Your task to perform on an android device: delete the emails in spam in the gmail app Image 0: 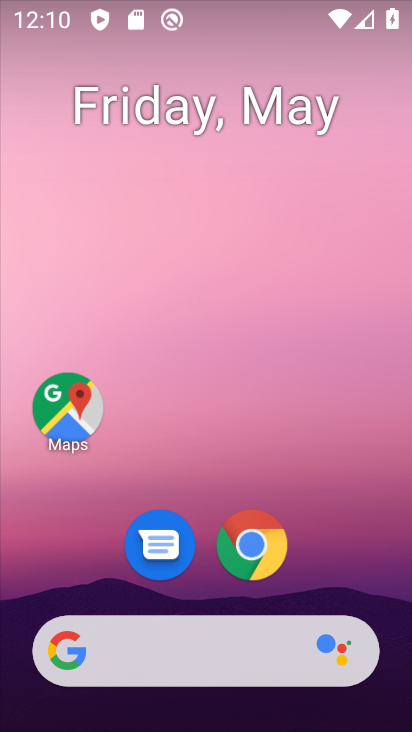
Step 0: drag from (324, 592) to (264, 83)
Your task to perform on an android device: delete the emails in spam in the gmail app Image 1: 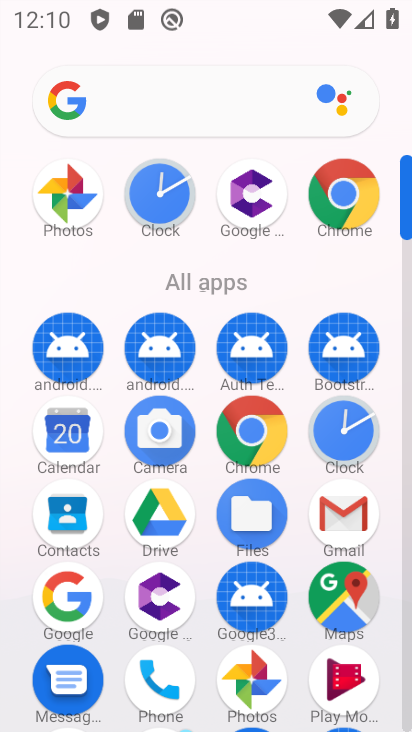
Step 1: drag from (205, 628) to (192, 364)
Your task to perform on an android device: delete the emails in spam in the gmail app Image 2: 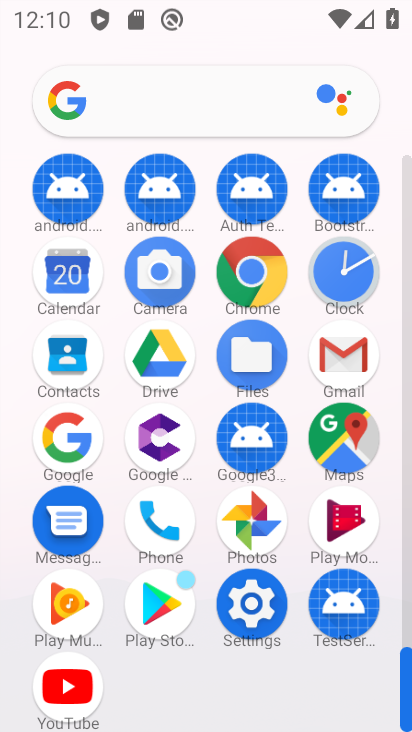
Step 2: click (336, 357)
Your task to perform on an android device: delete the emails in spam in the gmail app Image 3: 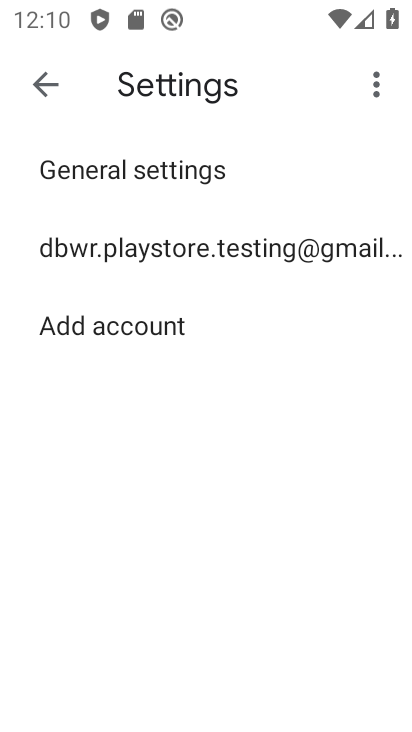
Step 3: click (52, 89)
Your task to perform on an android device: delete the emails in spam in the gmail app Image 4: 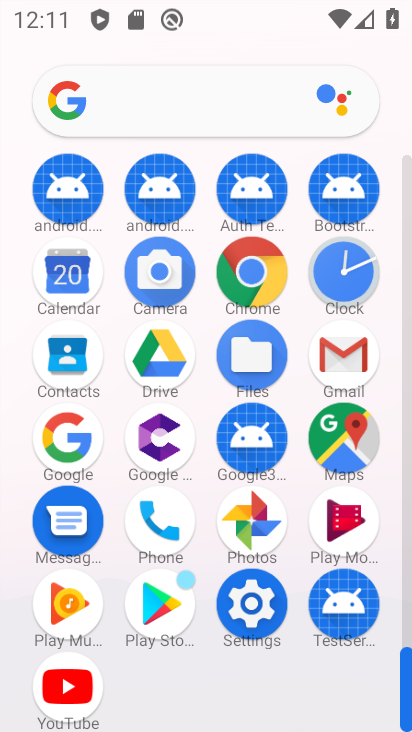
Step 4: click (346, 355)
Your task to perform on an android device: delete the emails in spam in the gmail app Image 5: 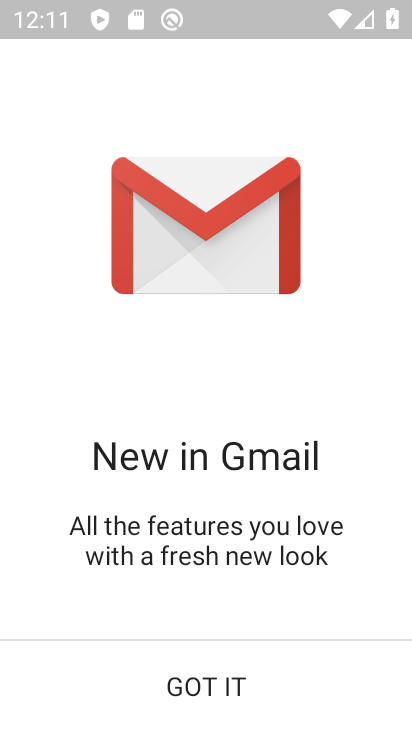
Step 5: click (201, 688)
Your task to perform on an android device: delete the emails in spam in the gmail app Image 6: 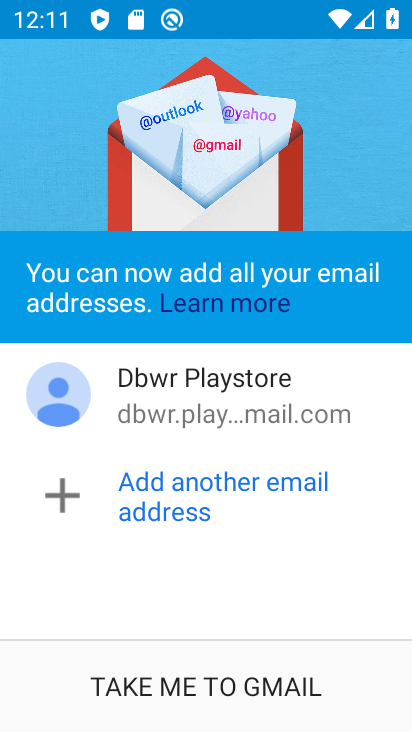
Step 6: click (246, 681)
Your task to perform on an android device: delete the emails in spam in the gmail app Image 7: 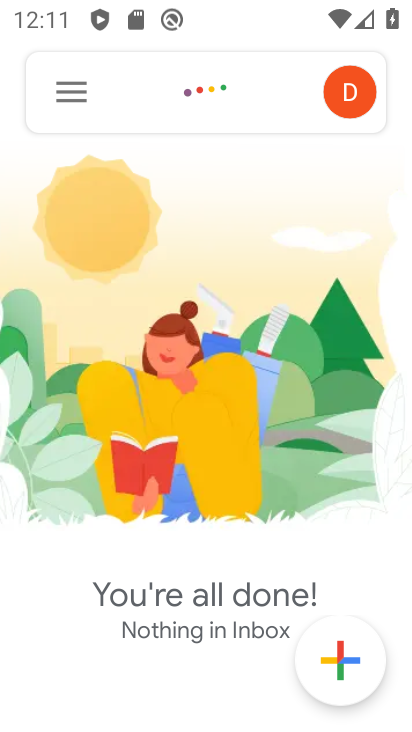
Step 7: click (62, 95)
Your task to perform on an android device: delete the emails in spam in the gmail app Image 8: 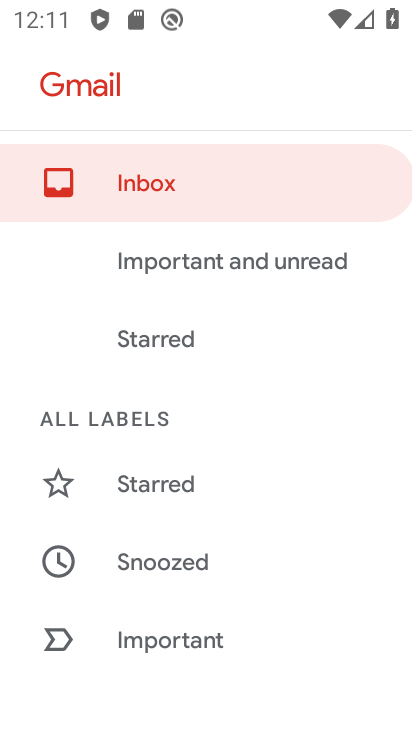
Step 8: drag from (198, 607) to (221, 187)
Your task to perform on an android device: delete the emails in spam in the gmail app Image 9: 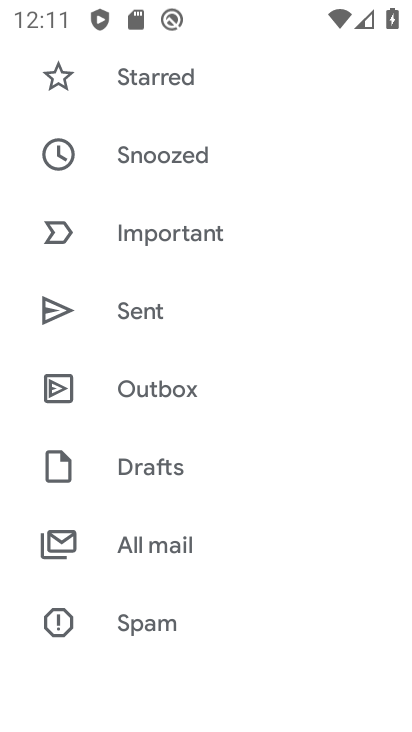
Step 9: click (178, 616)
Your task to perform on an android device: delete the emails in spam in the gmail app Image 10: 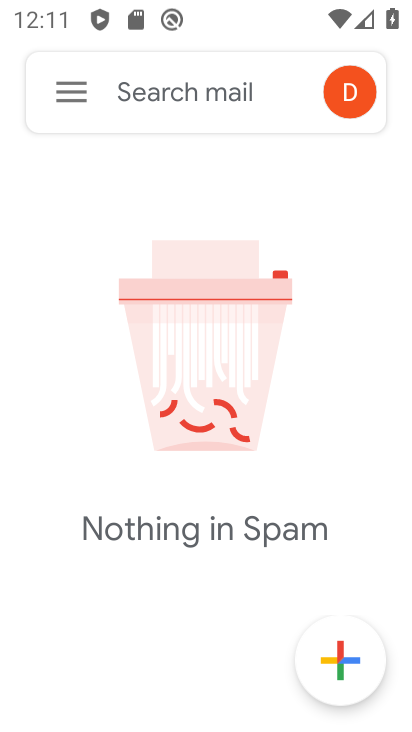
Step 10: task complete